Your task to perform on an android device: change the clock display to show seconds Image 0: 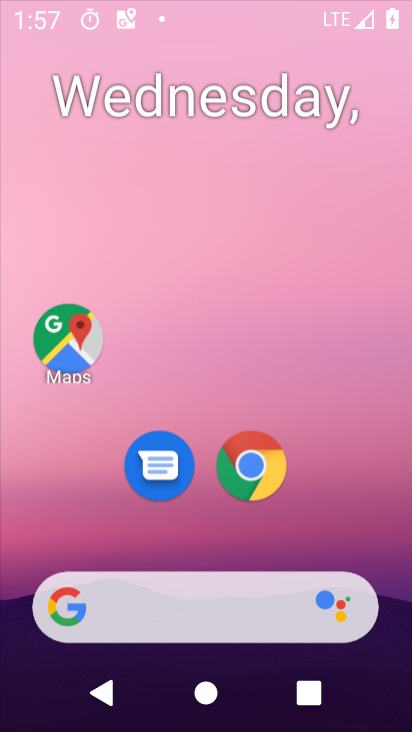
Step 0: click (248, 442)
Your task to perform on an android device: change the clock display to show seconds Image 1: 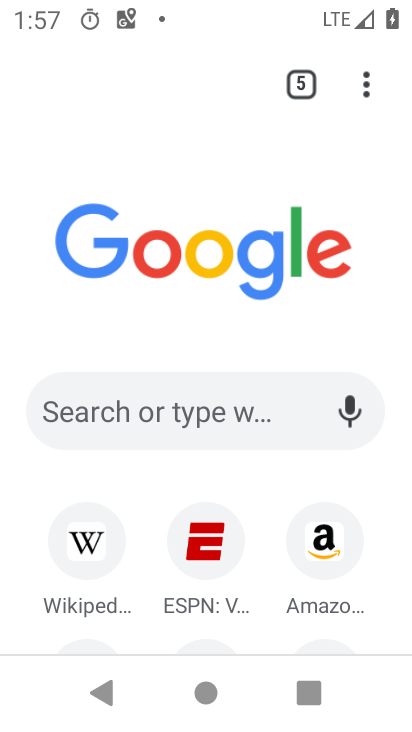
Step 1: press home button
Your task to perform on an android device: change the clock display to show seconds Image 2: 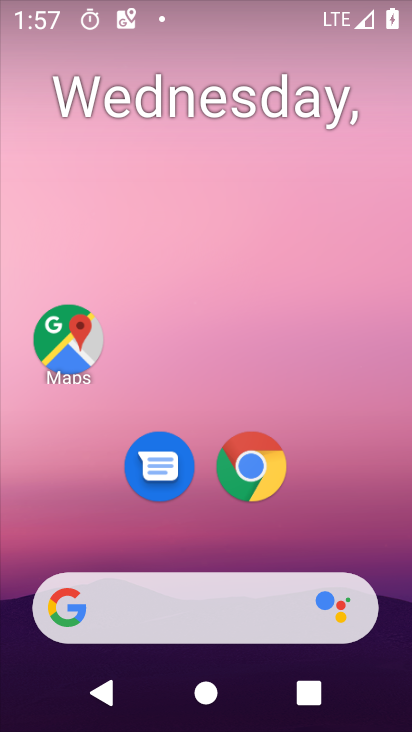
Step 2: drag from (321, 474) to (272, 144)
Your task to perform on an android device: change the clock display to show seconds Image 3: 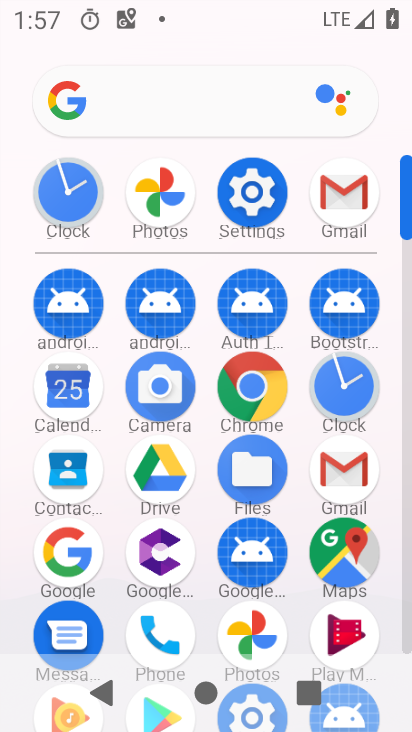
Step 3: click (237, 194)
Your task to perform on an android device: change the clock display to show seconds Image 4: 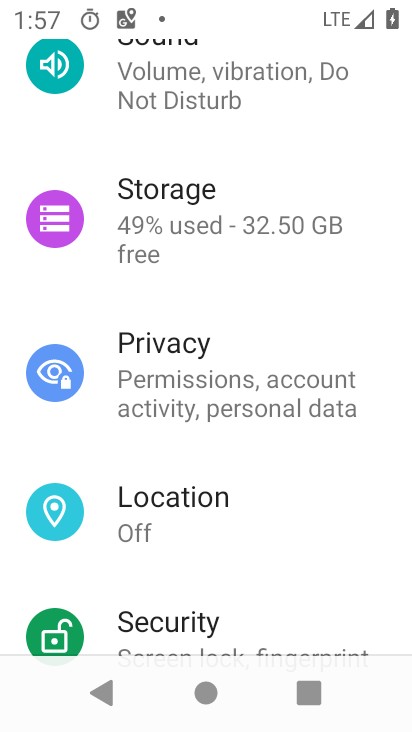
Step 4: press home button
Your task to perform on an android device: change the clock display to show seconds Image 5: 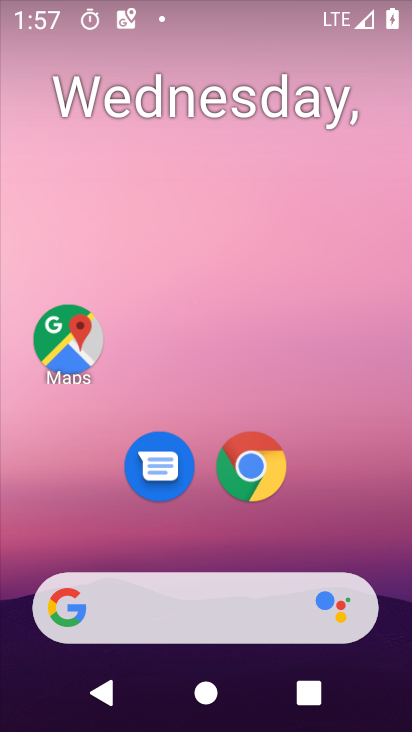
Step 5: drag from (298, 464) to (249, 78)
Your task to perform on an android device: change the clock display to show seconds Image 6: 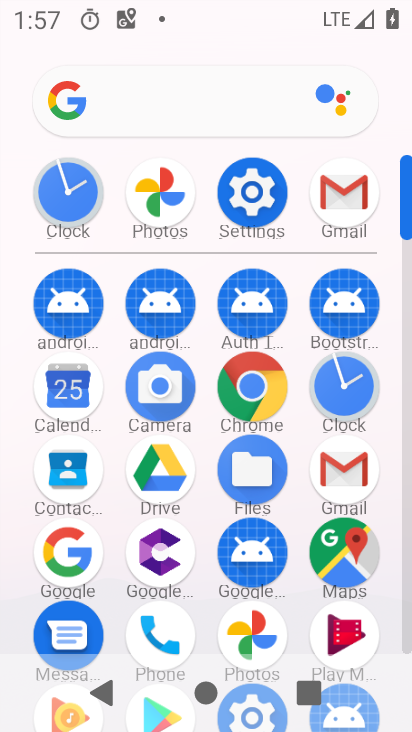
Step 6: click (60, 185)
Your task to perform on an android device: change the clock display to show seconds Image 7: 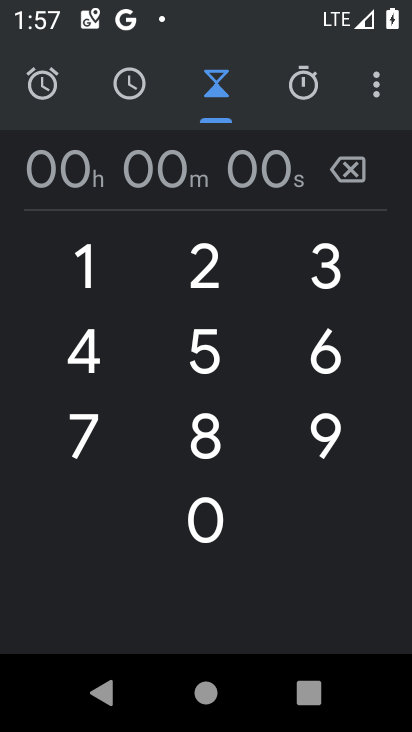
Step 7: click (358, 77)
Your task to perform on an android device: change the clock display to show seconds Image 8: 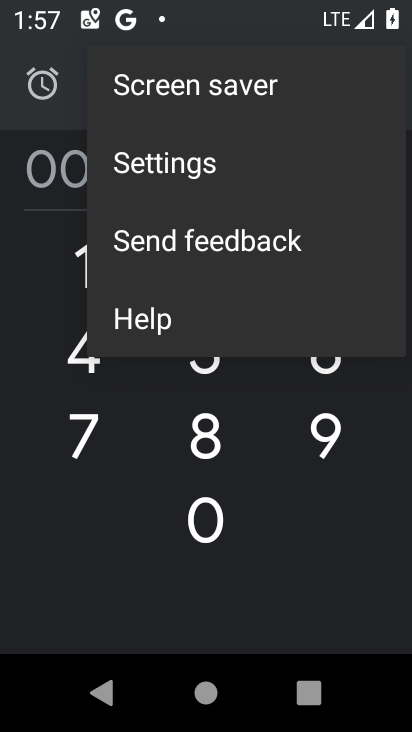
Step 8: click (251, 154)
Your task to perform on an android device: change the clock display to show seconds Image 9: 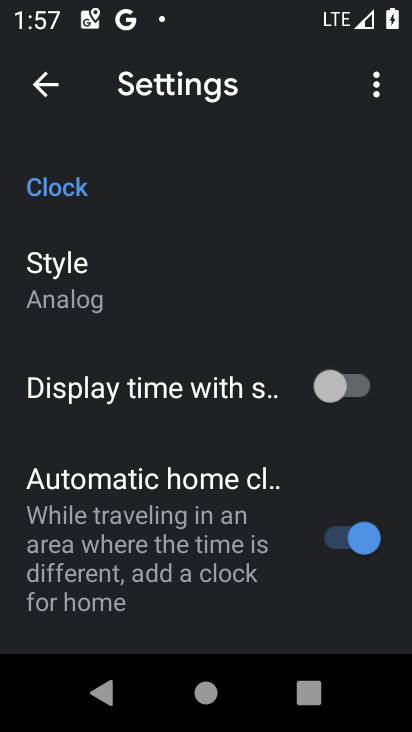
Step 9: click (180, 401)
Your task to perform on an android device: change the clock display to show seconds Image 10: 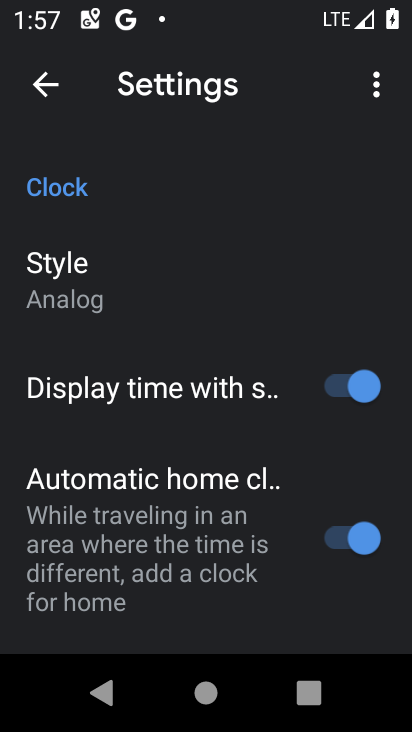
Step 10: drag from (187, 543) to (206, 257)
Your task to perform on an android device: change the clock display to show seconds Image 11: 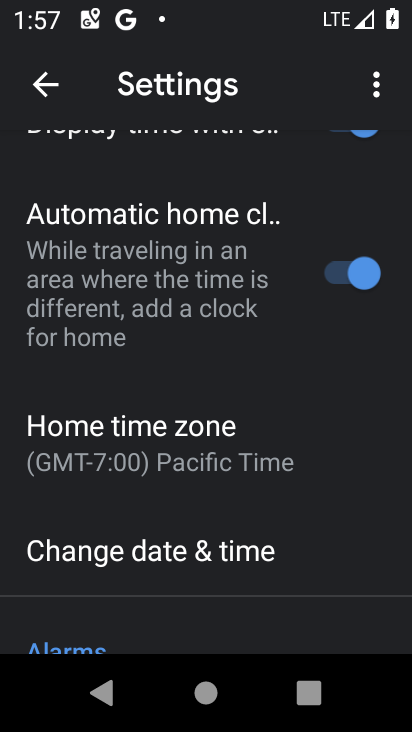
Step 11: drag from (223, 626) to (221, 384)
Your task to perform on an android device: change the clock display to show seconds Image 12: 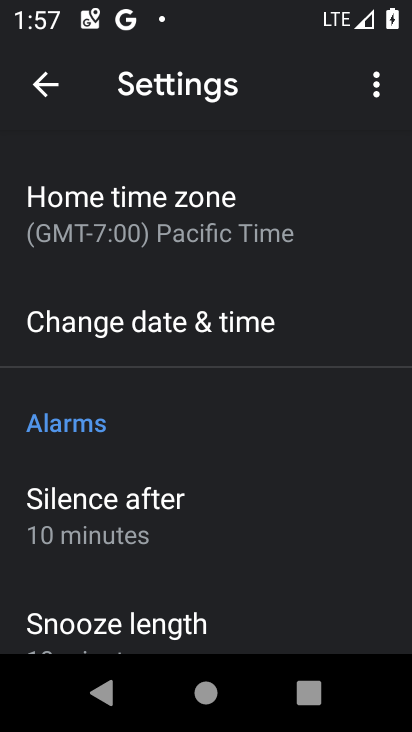
Step 12: drag from (212, 633) to (195, 315)
Your task to perform on an android device: change the clock display to show seconds Image 13: 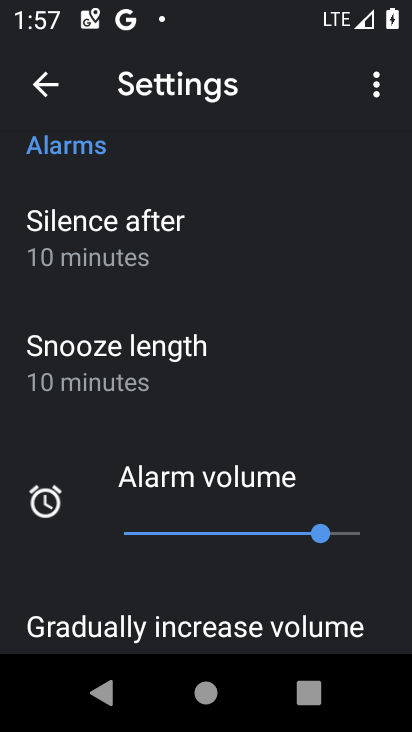
Step 13: drag from (217, 245) to (213, 572)
Your task to perform on an android device: change the clock display to show seconds Image 14: 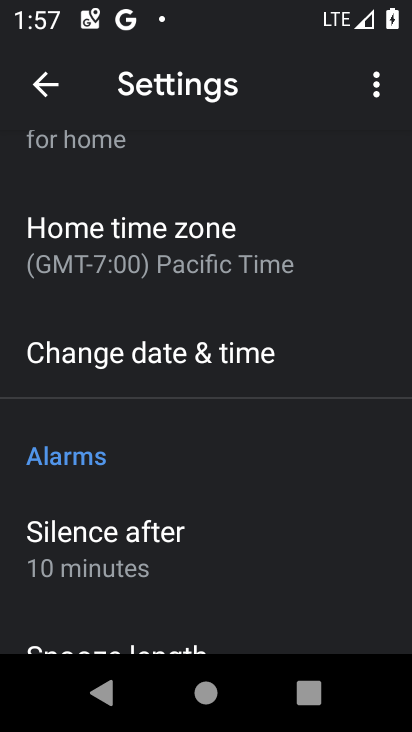
Step 14: click (204, 347)
Your task to perform on an android device: change the clock display to show seconds Image 15: 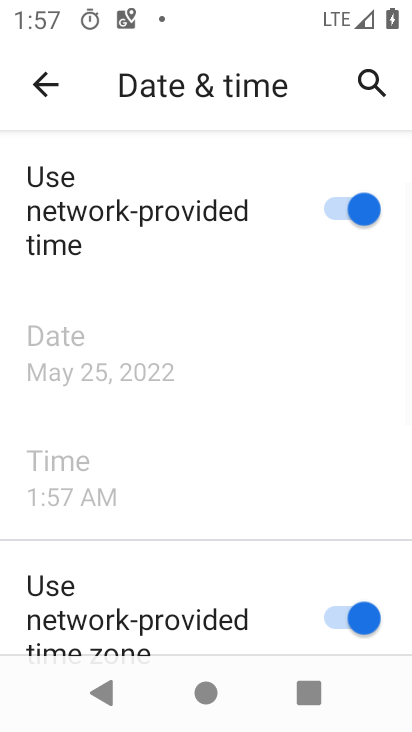
Step 15: drag from (190, 556) to (174, 390)
Your task to perform on an android device: change the clock display to show seconds Image 16: 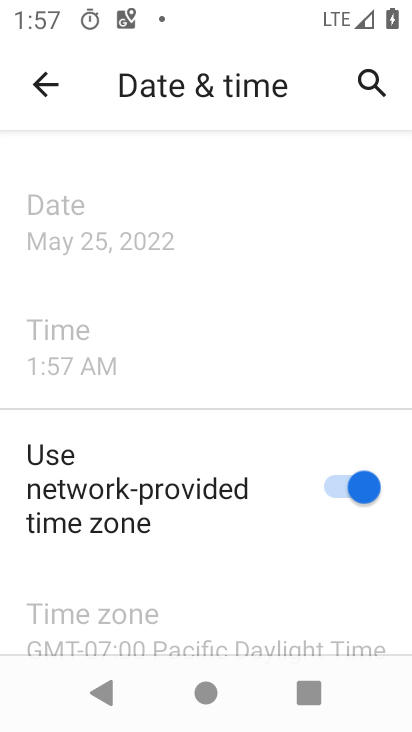
Step 16: drag from (157, 557) to (167, 446)
Your task to perform on an android device: change the clock display to show seconds Image 17: 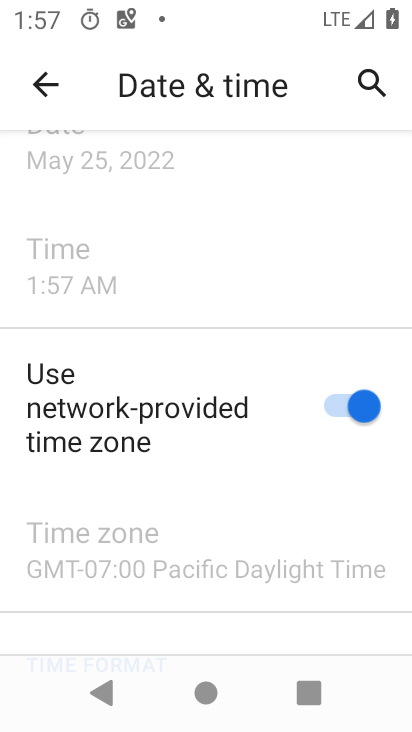
Step 17: click (207, 452)
Your task to perform on an android device: change the clock display to show seconds Image 18: 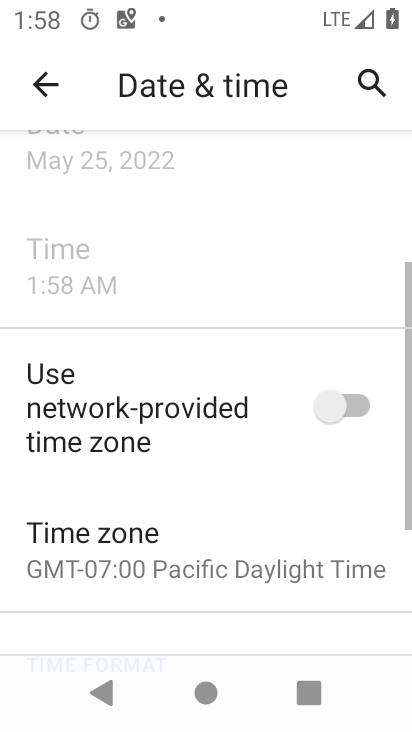
Step 18: click (342, 400)
Your task to perform on an android device: change the clock display to show seconds Image 19: 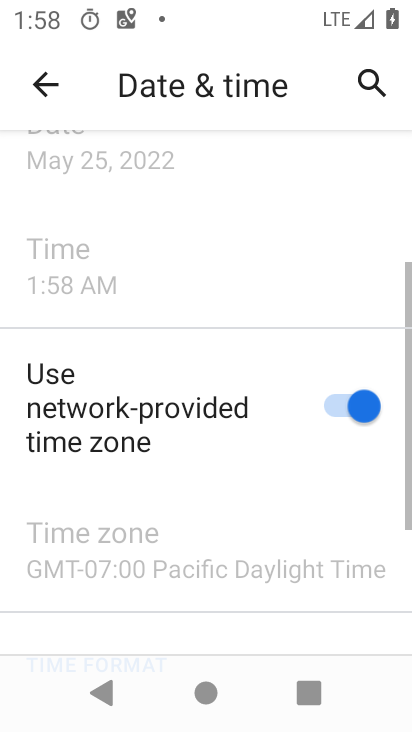
Step 19: task complete